Your task to perform on an android device: Go to Reddit.com Image 0: 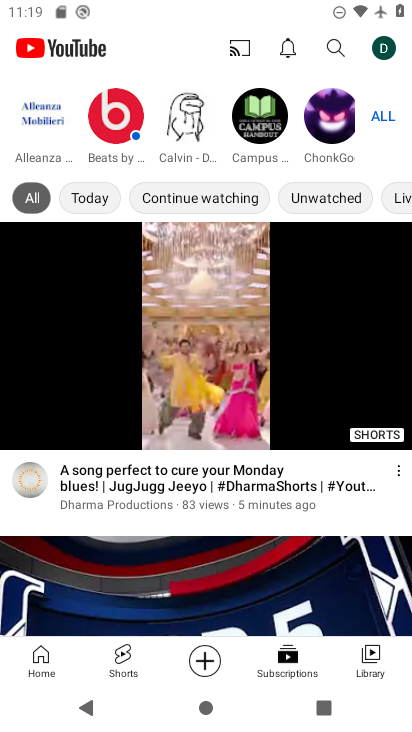
Step 0: press home button
Your task to perform on an android device: Go to Reddit.com Image 1: 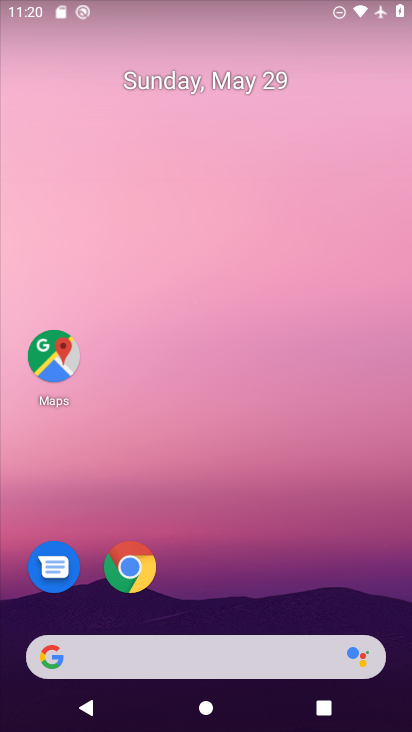
Step 1: click (128, 566)
Your task to perform on an android device: Go to Reddit.com Image 2: 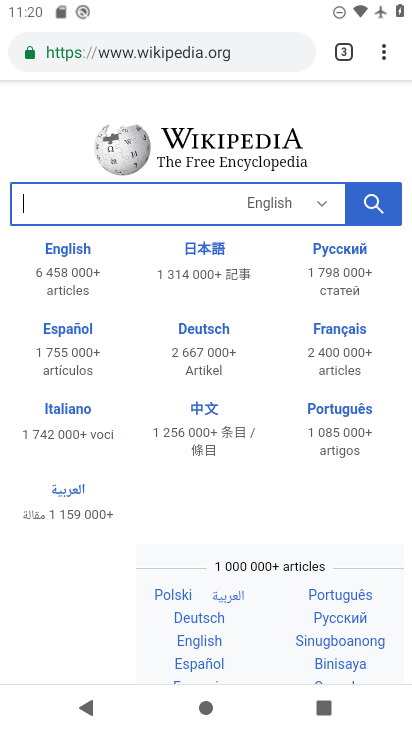
Step 2: click (255, 50)
Your task to perform on an android device: Go to Reddit.com Image 3: 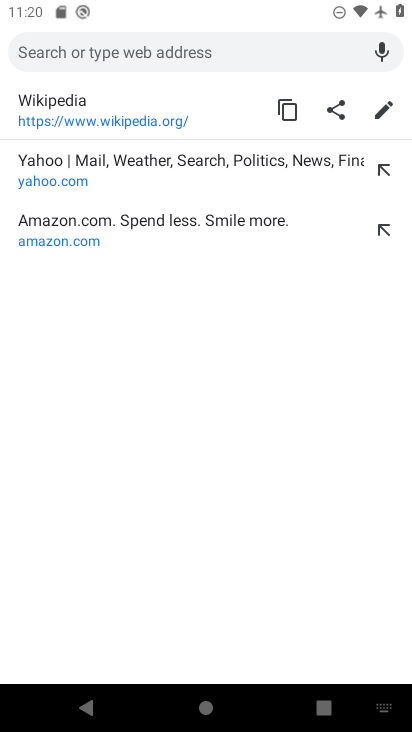
Step 3: type "reddit.com"
Your task to perform on an android device: Go to Reddit.com Image 4: 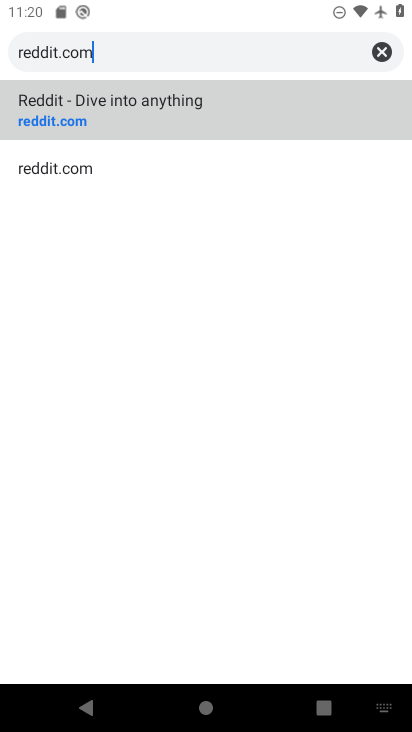
Step 4: click (73, 105)
Your task to perform on an android device: Go to Reddit.com Image 5: 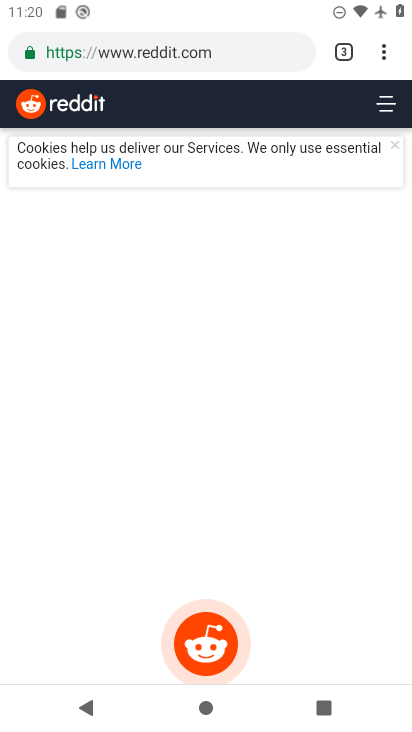
Step 5: task complete